Your task to perform on an android device: turn vacation reply on in the gmail app Image 0: 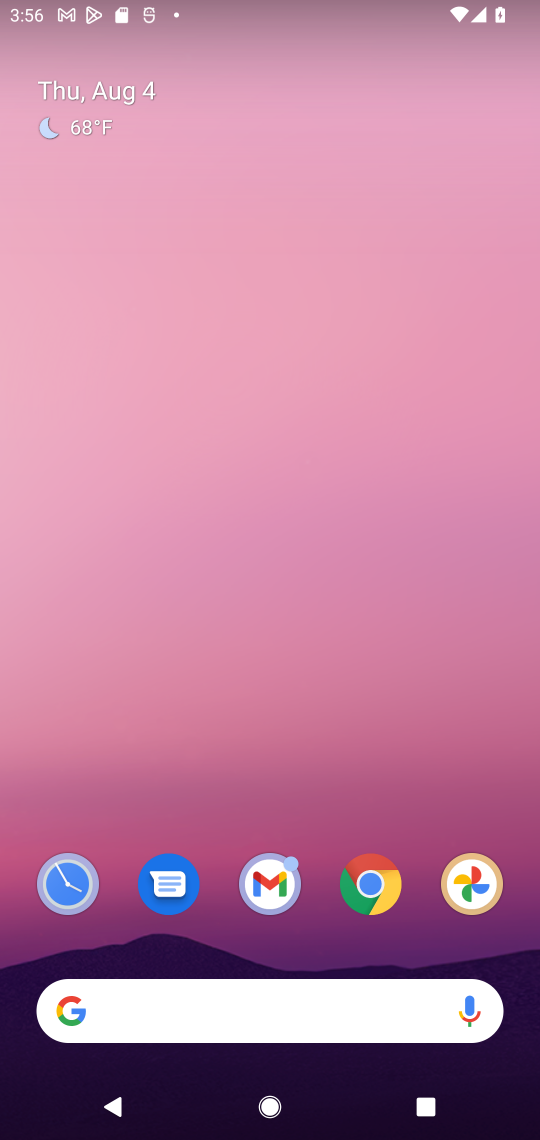
Step 0: drag from (323, 958) to (454, 236)
Your task to perform on an android device: turn vacation reply on in the gmail app Image 1: 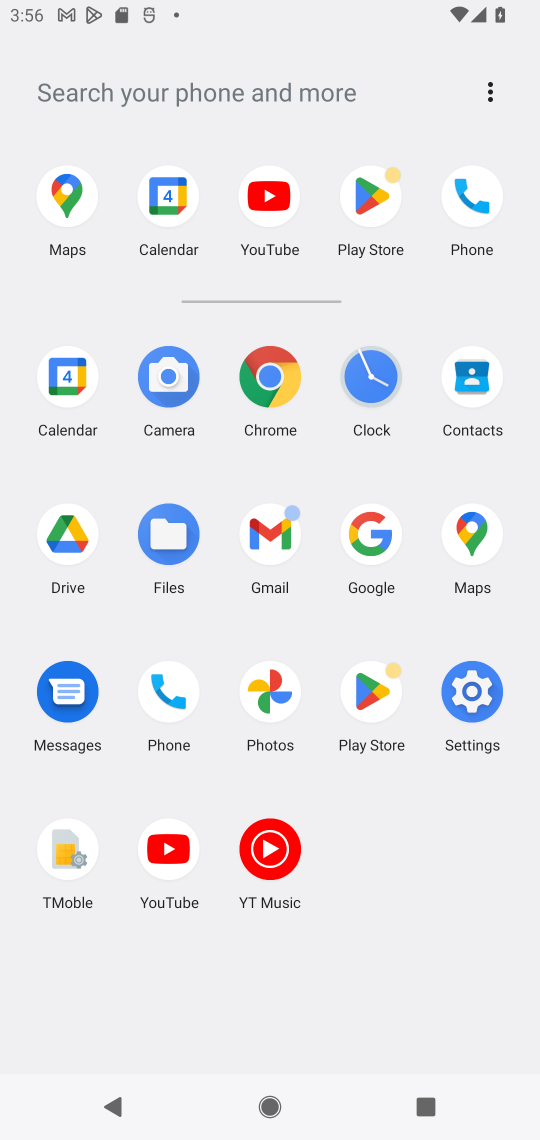
Step 1: click (283, 557)
Your task to perform on an android device: turn vacation reply on in the gmail app Image 2: 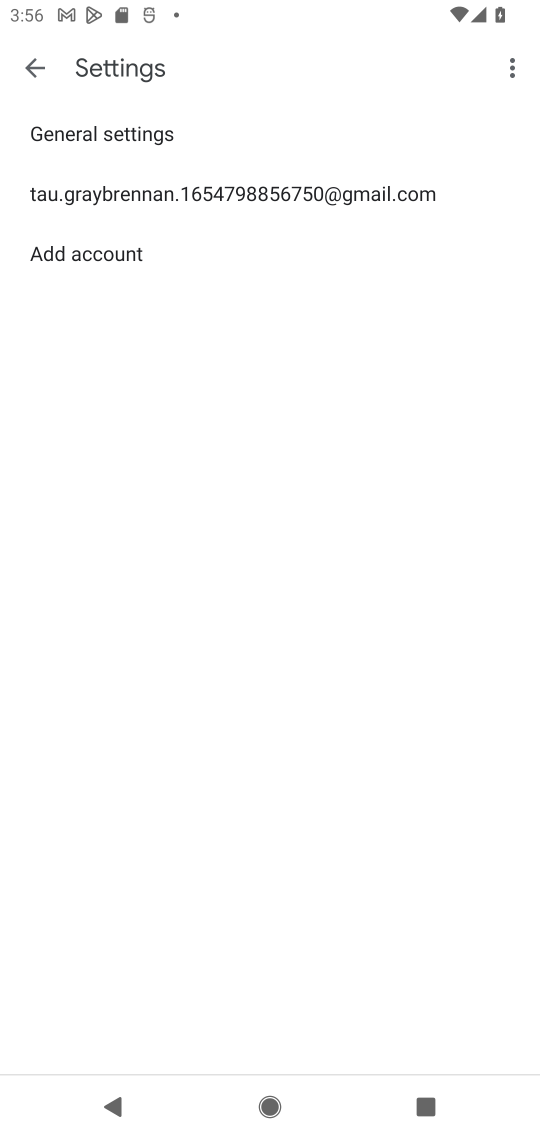
Step 2: task complete